Your task to perform on an android device: toggle airplane mode Image 0: 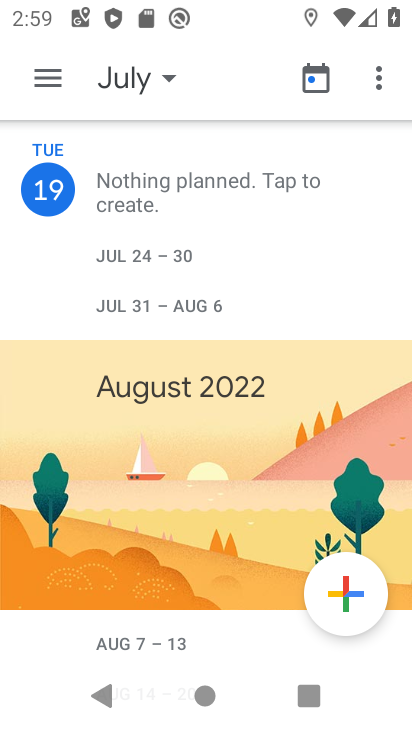
Step 0: press back button
Your task to perform on an android device: toggle airplane mode Image 1: 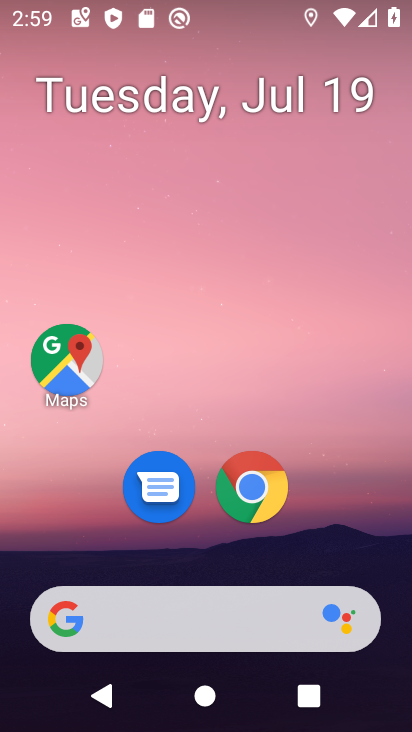
Step 1: drag from (333, 8) to (286, 487)
Your task to perform on an android device: toggle airplane mode Image 2: 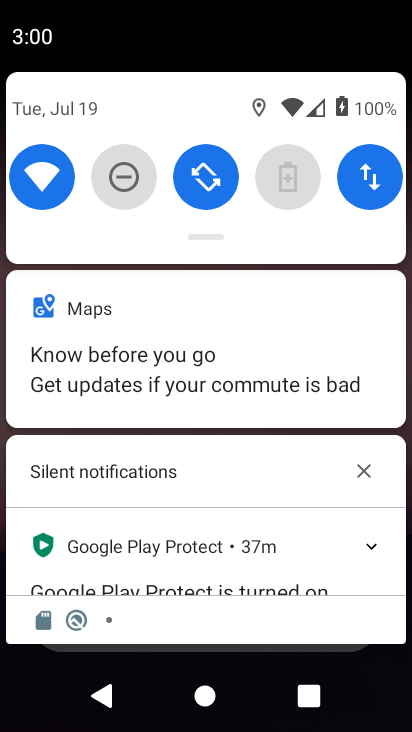
Step 2: drag from (227, 206) to (213, 643)
Your task to perform on an android device: toggle airplane mode Image 3: 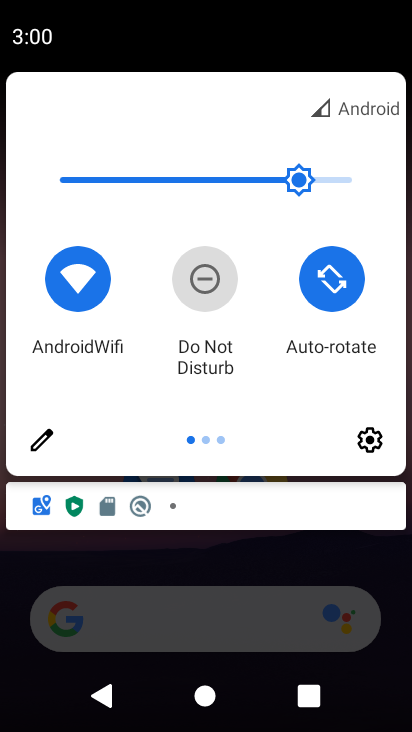
Step 3: drag from (370, 286) to (0, 307)
Your task to perform on an android device: toggle airplane mode Image 4: 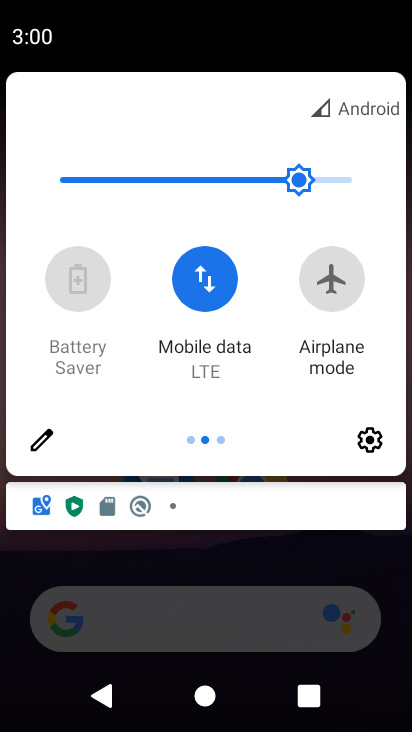
Step 4: click (331, 273)
Your task to perform on an android device: toggle airplane mode Image 5: 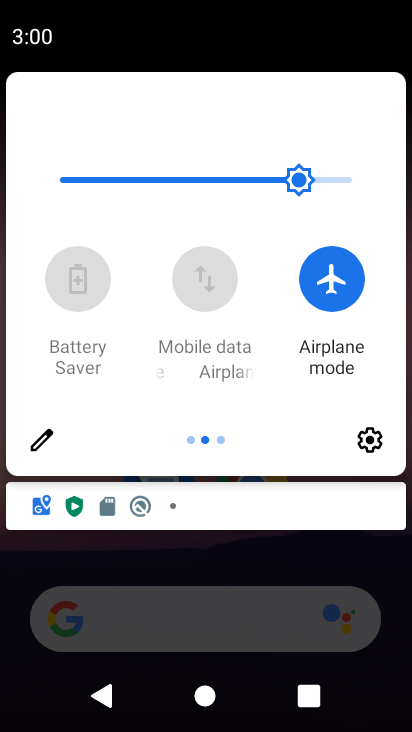
Step 5: task complete